Your task to perform on an android device: toggle priority inbox in the gmail app Image 0: 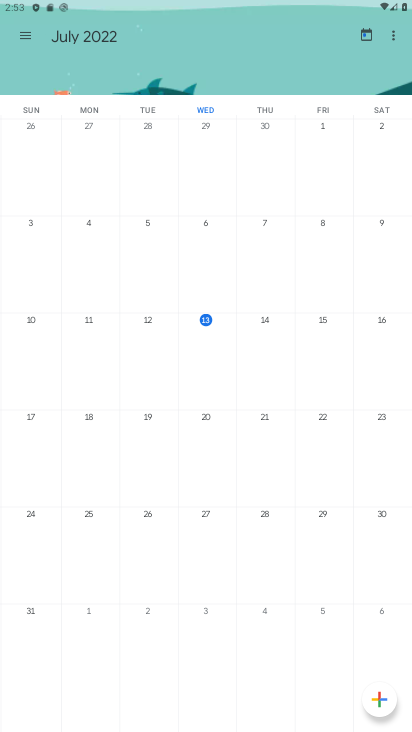
Step 0: press home button
Your task to perform on an android device: toggle priority inbox in the gmail app Image 1: 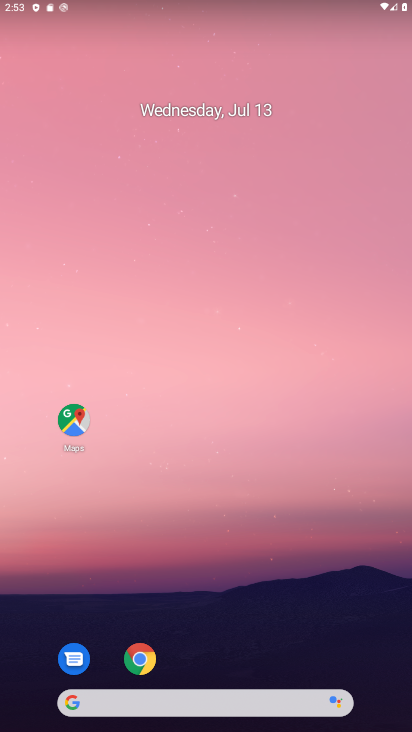
Step 1: drag from (159, 687) to (276, 201)
Your task to perform on an android device: toggle priority inbox in the gmail app Image 2: 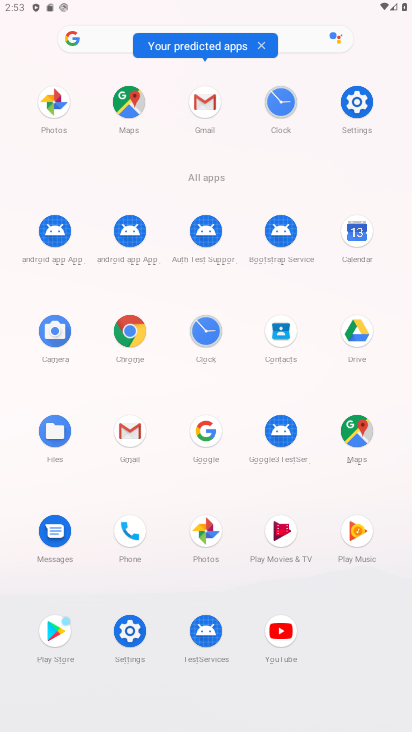
Step 2: click (138, 431)
Your task to perform on an android device: toggle priority inbox in the gmail app Image 3: 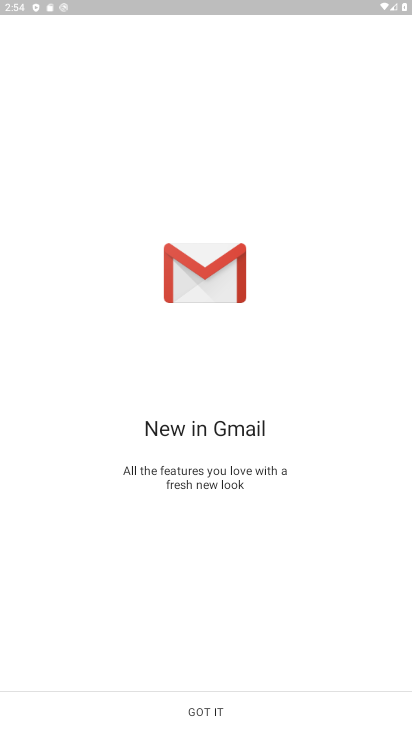
Step 3: click (193, 706)
Your task to perform on an android device: toggle priority inbox in the gmail app Image 4: 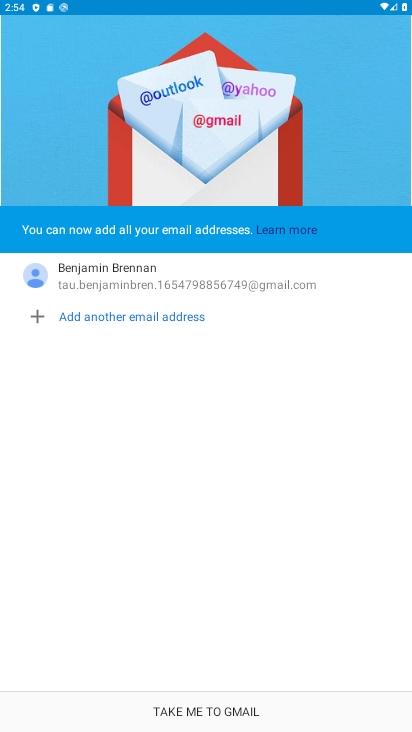
Step 4: click (230, 711)
Your task to perform on an android device: toggle priority inbox in the gmail app Image 5: 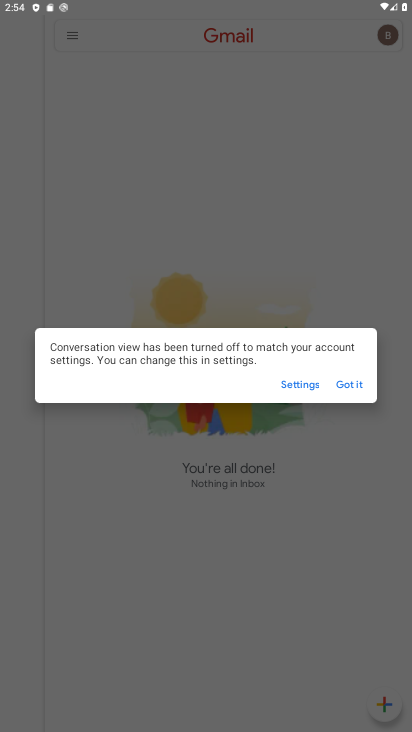
Step 5: click (343, 378)
Your task to perform on an android device: toggle priority inbox in the gmail app Image 6: 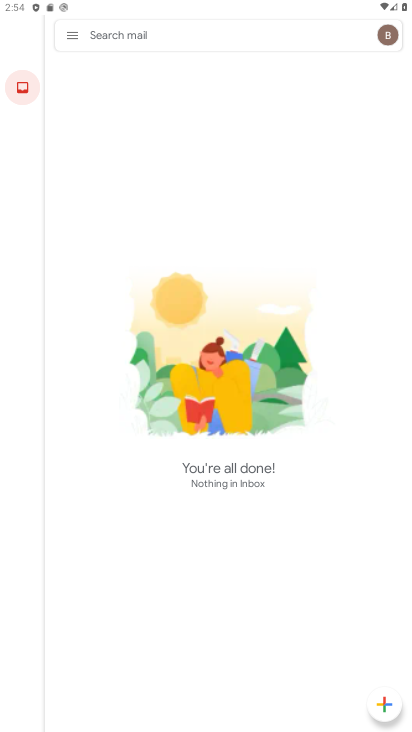
Step 6: click (87, 38)
Your task to perform on an android device: toggle priority inbox in the gmail app Image 7: 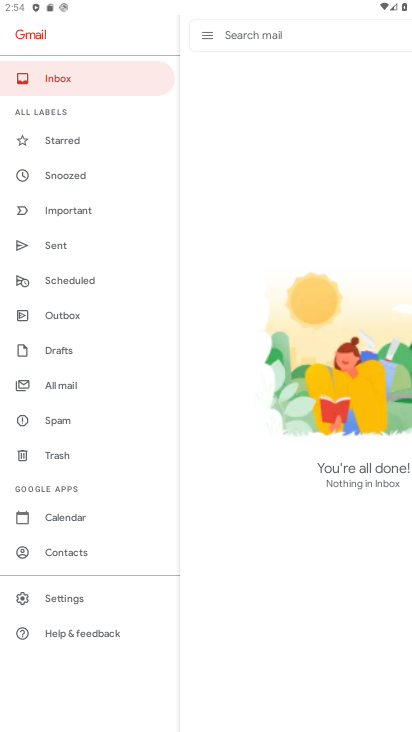
Step 7: click (75, 591)
Your task to perform on an android device: toggle priority inbox in the gmail app Image 8: 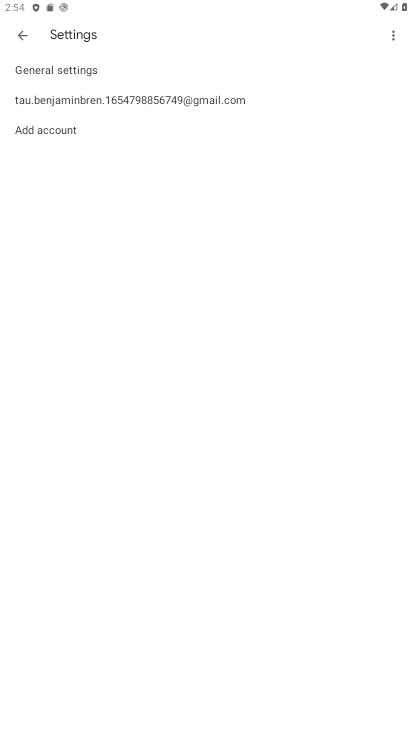
Step 8: click (207, 98)
Your task to perform on an android device: toggle priority inbox in the gmail app Image 9: 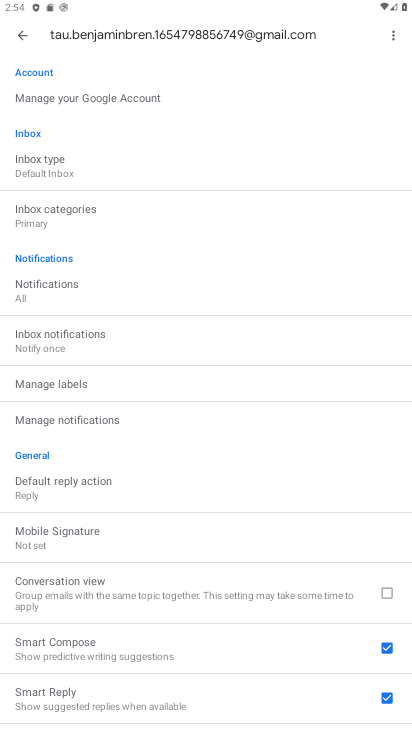
Step 9: click (154, 169)
Your task to perform on an android device: toggle priority inbox in the gmail app Image 10: 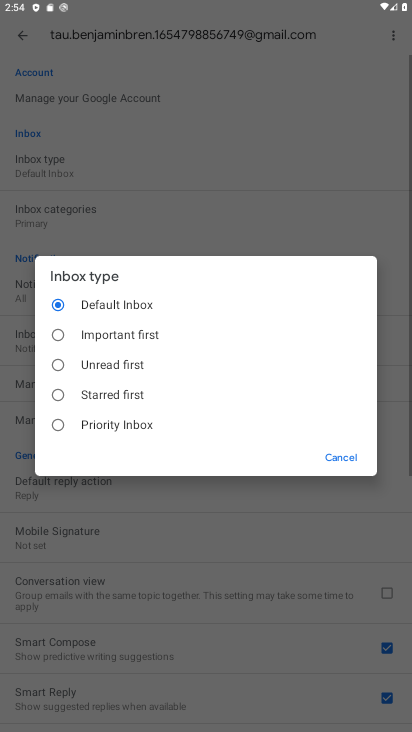
Step 10: click (124, 425)
Your task to perform on an android device: toggle priority inbox in the gmail app Image 11: 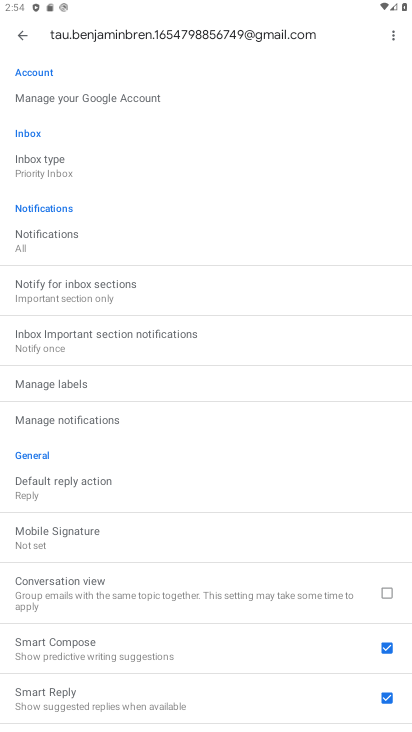
Step 11: task complete